Your task to perform on an android device: Check the weather Image 0: 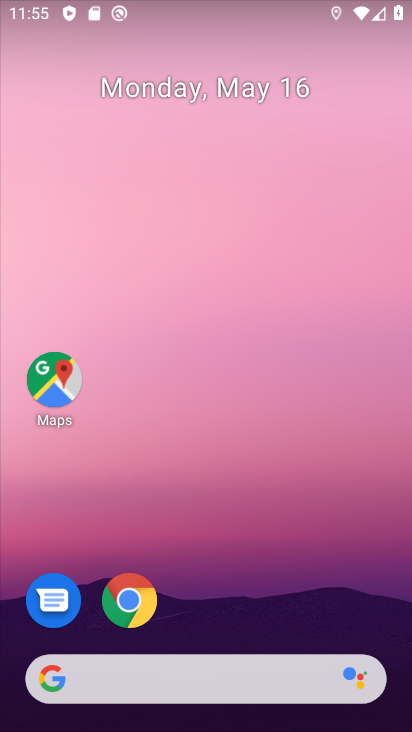
Step 0: click (148, 592)
Your task to perform on an android device: Check the weather Image 1: 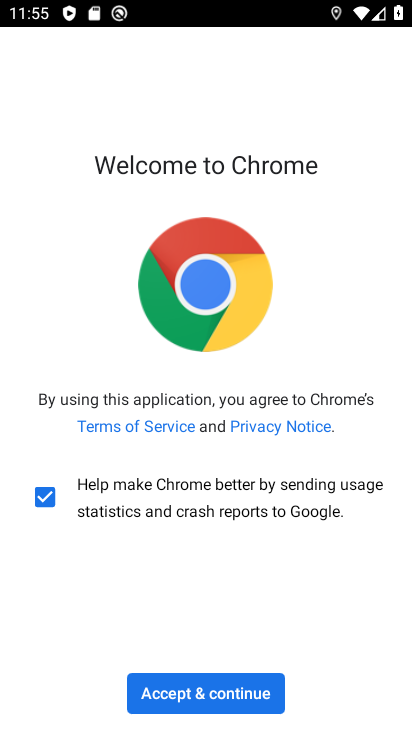
Step 1: click (199, 697)
Your task to perform on an android device: Check the weather Image 2: 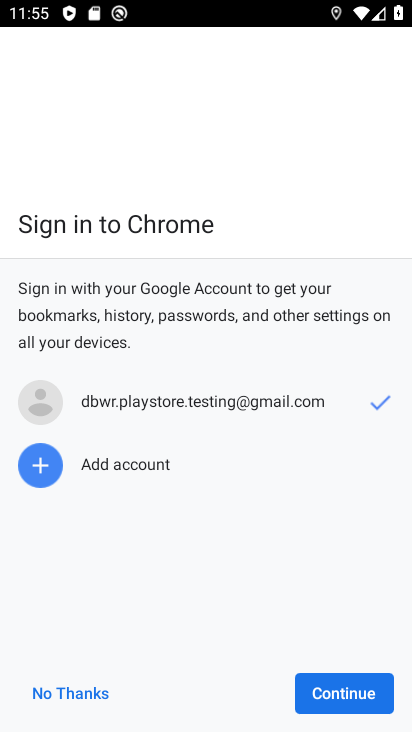
Step 2: click (313, 698)
Your task to perform on an android device: Check the weather Image 3: 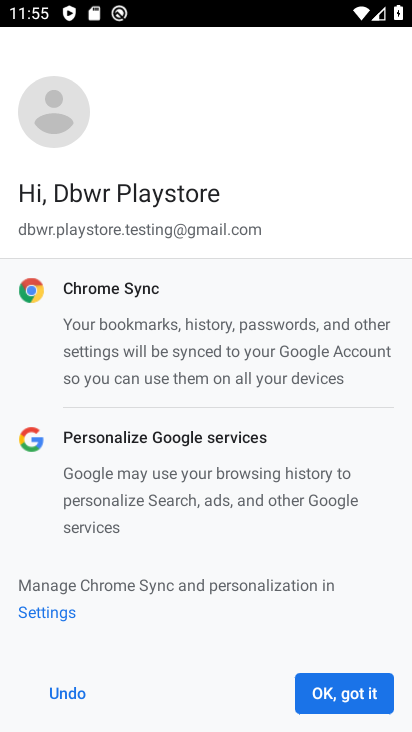
Step 3: click (313, 698)
Your task to perform on an android device: Check the weather Image 4: 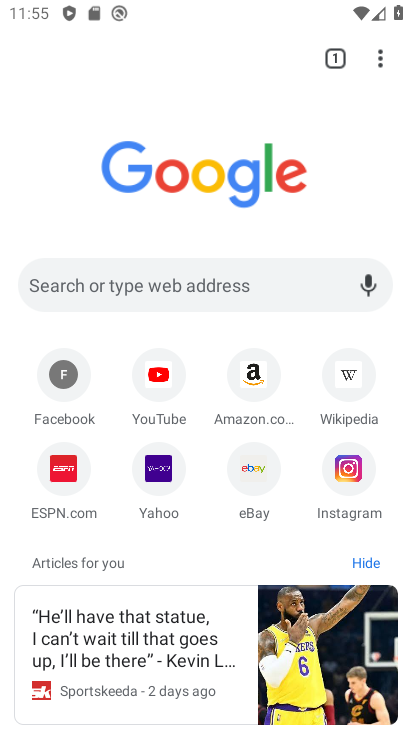
Step 4: click (243, 295)
Your task to perform on an android device: Check the weather Image 5: 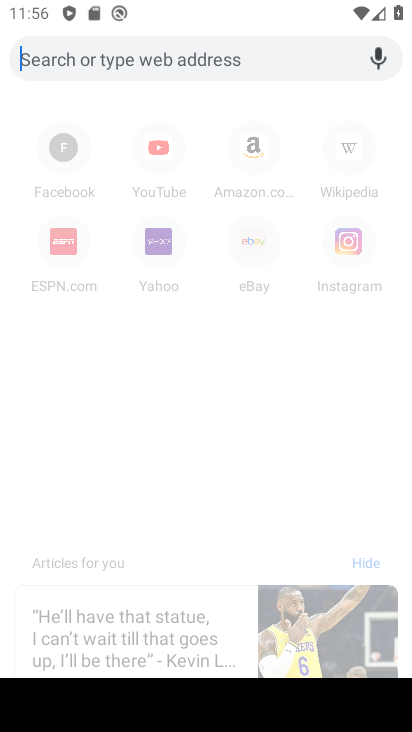
Step 5: type "weather"
Your task to perform on an android device: Check the weather Image 6: 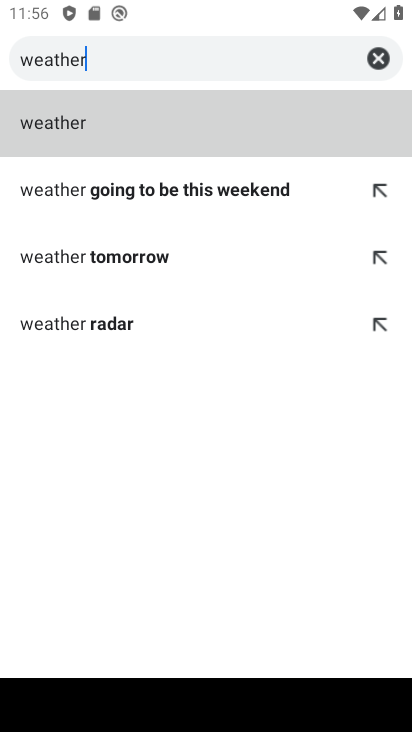
Step 6: click (282, 119)
Your task to perform on an android device: Check the weather Image 7: 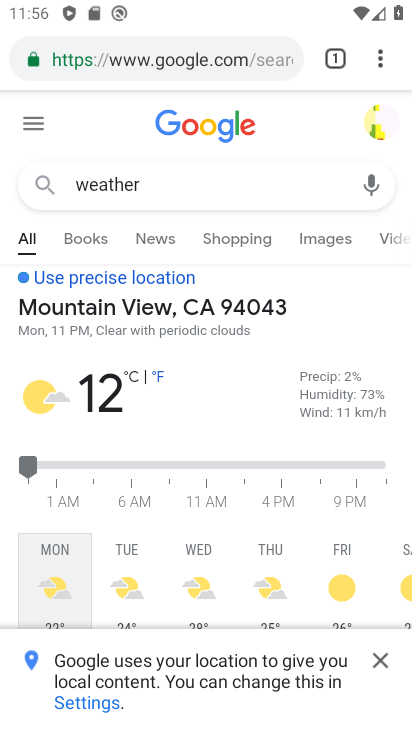
Step 7: click (386, 658)
Your task to perform on an android device: Check the weather Image 8: 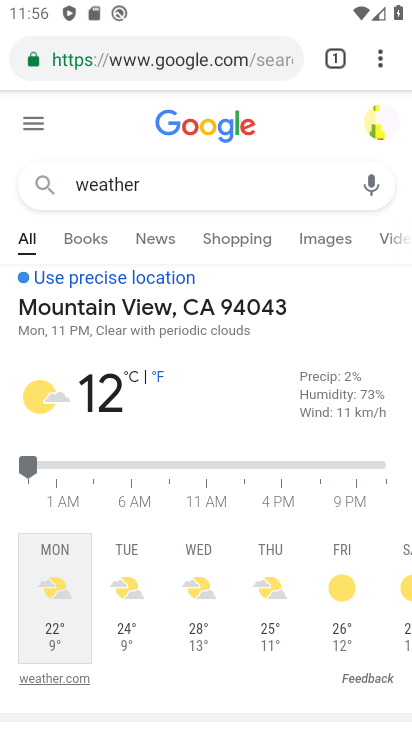
Step 8: task complete